Your task to perform on an android device: Go to Reddit.com Image 0: 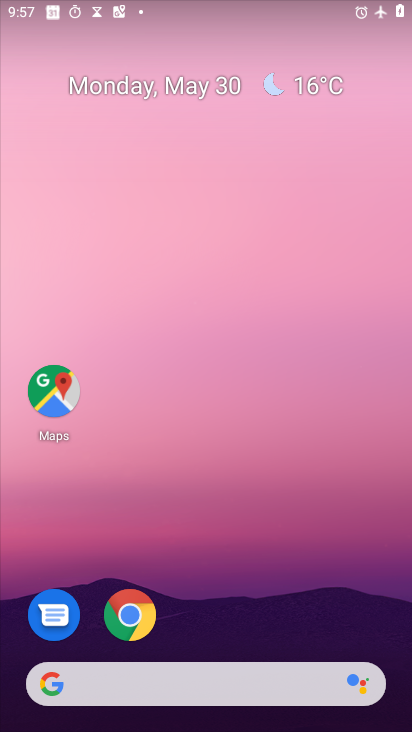
Step 0: drag from (261, 602) to (257, 11)
Your task to perform on an android device: Go to Reddit.com Image 1: 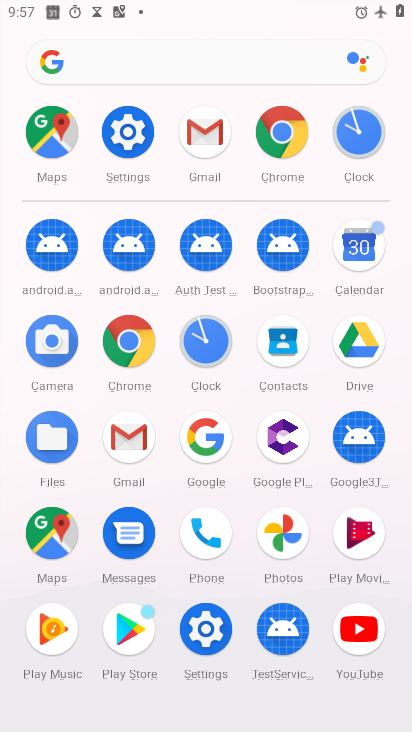
Step 1: click (290, 138)
Your task to perform on an android device: Go to Reddit.com Image 2: 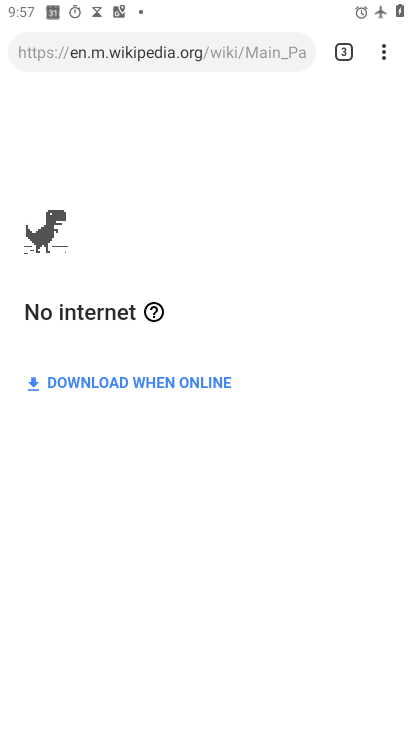
Step 2: click (212, 49)
Your task to perform on an android device: Go to Reddit.com Image 3: 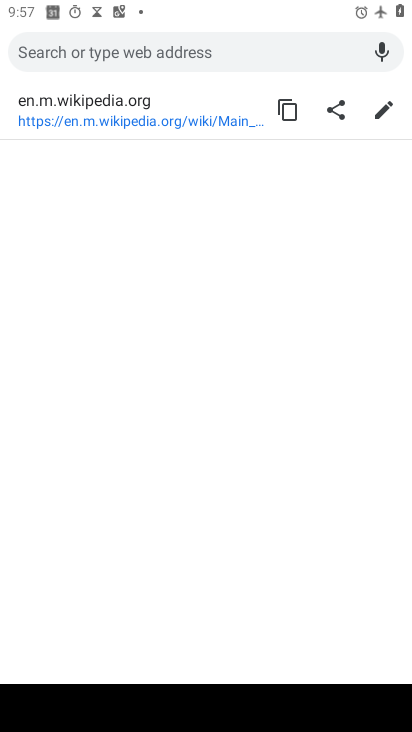
Step 3: type "reddit"
Your task to perform on an android device: Go to Reddit.com Image 4: 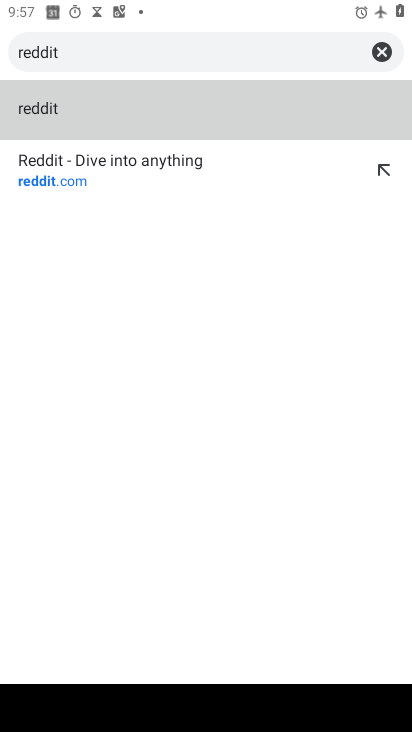
Step 4: click (58, 186)
Your task to perform on an android device: Go to Reddit.com Image 5: 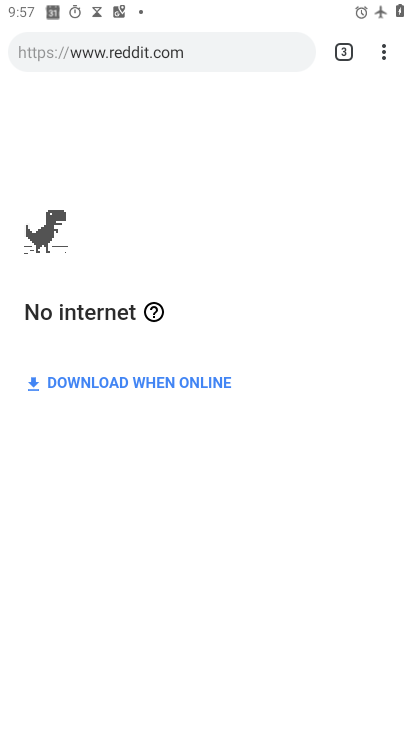
Step 5: task complete